Your task to perform on an android device: Open Reddit.com Image 0: 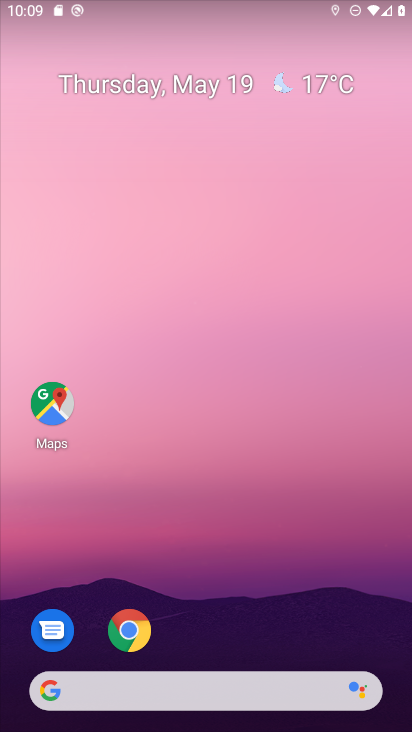
Step 0: click (131, 638)
Your task to perform on an android device: Open Reddit.com Image 1: 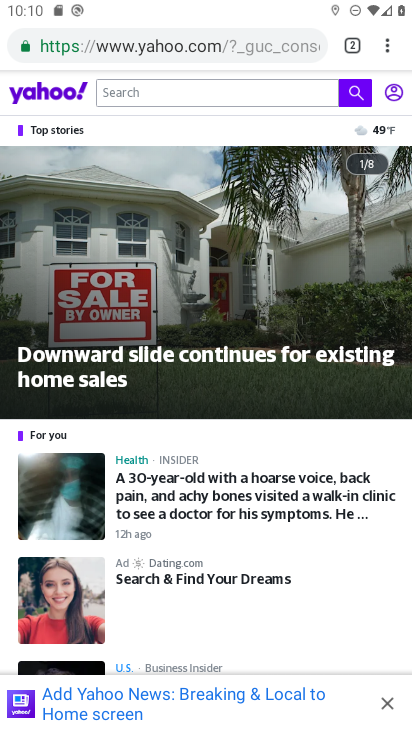
Step 1: click (386, 42)
Your task to perform on an android device: Open Reddit.com Image 2: 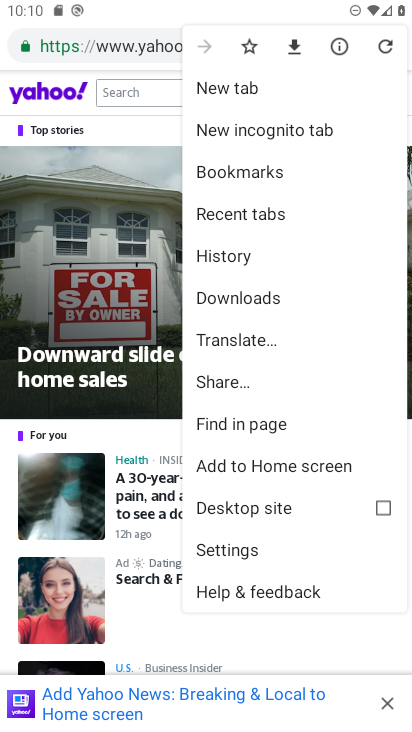
Step 2: click (252, 87)
Your task to perform on an android device: Open Reddit.com Image 3: 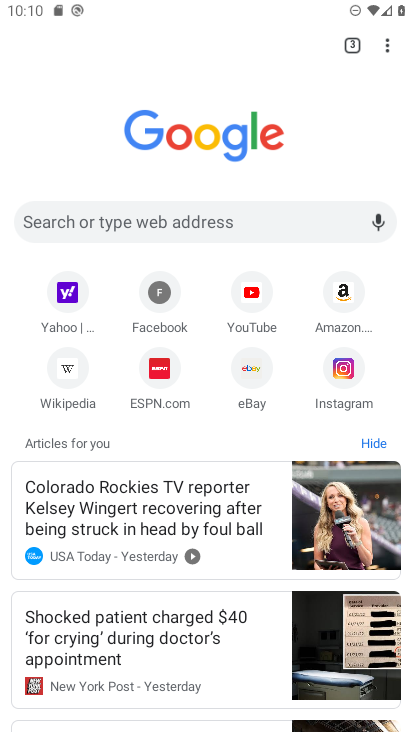
Step 3: click (157, 214)
Your task to perform on an android device: Open Reddit.com Image 4: 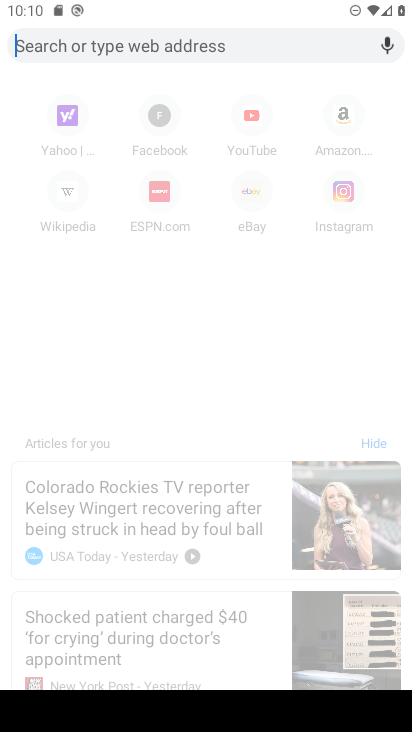
Step 4: type "reddit.com"
Your task to perform on an android device: Open Reddit.com Image 5: 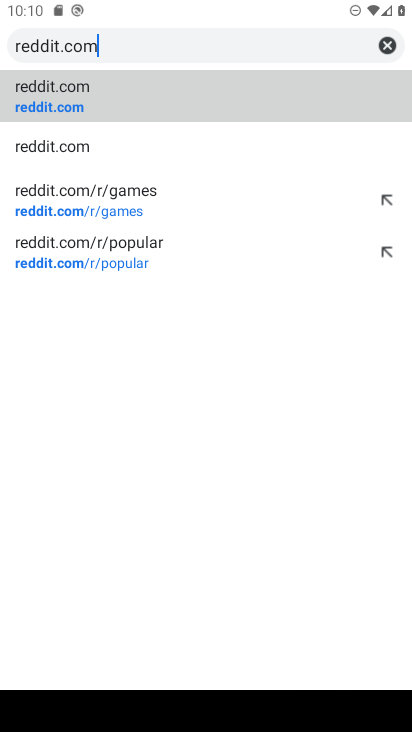
Step 5: click (77, 93)
Your task to perform on an android device: Open Reddit.com Image 6: 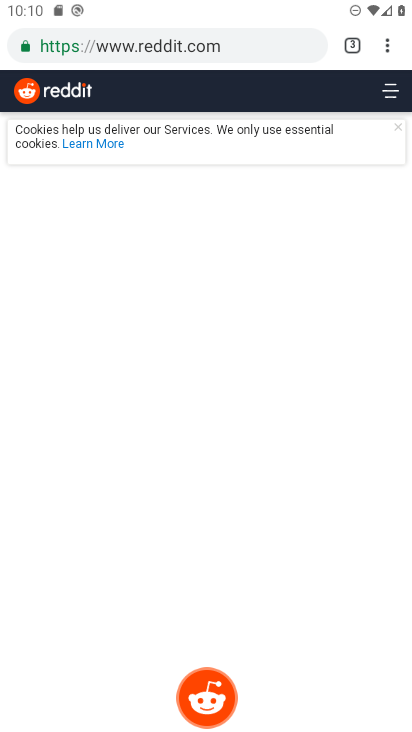
Step 6: task complete